Your task to perform on an android device: turn off notifications in google photos Image 0: 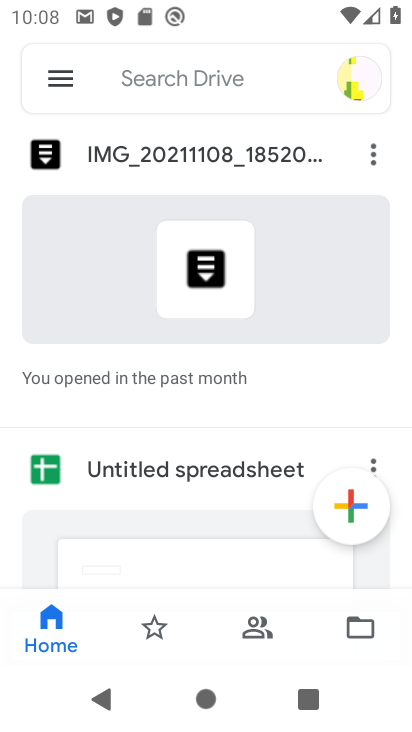
Step 0: press home button
Your task to perform on an android device: turn off notifications in google photos Image 1: 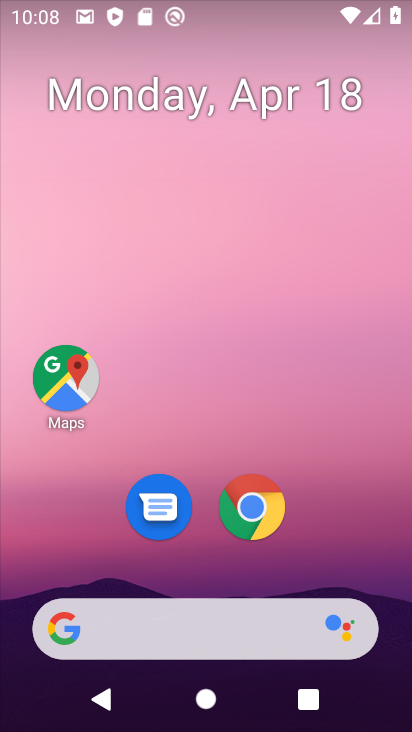
Step 1: drag from (332, 470) to (339, 90)
Your task to perform on an android device: turn off notifications in google photos Image 2: 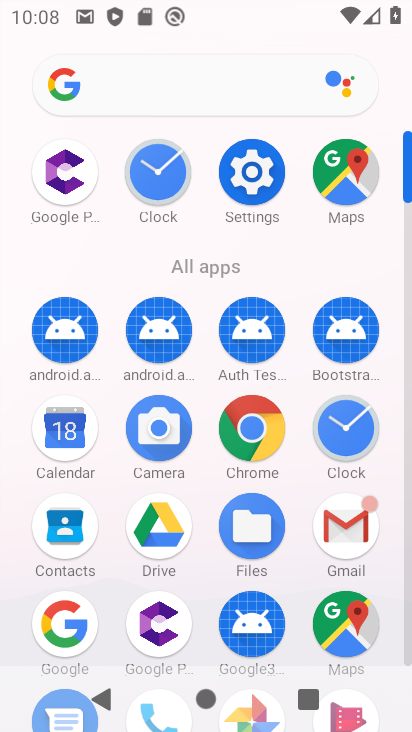
Step 2: drag from (284, 569) to (316, 224)
Your task to perform on an android device: turn off notifications in google photos Image 3: 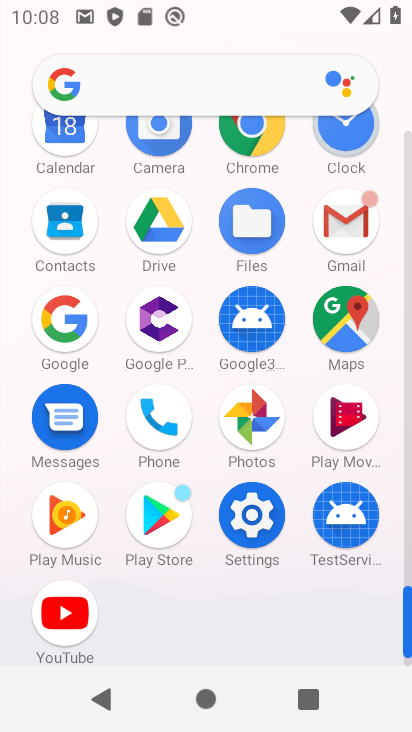
Step 3: click (265, 413)
Your task to perform on an android device: turn off notifications in google photos Image 4: 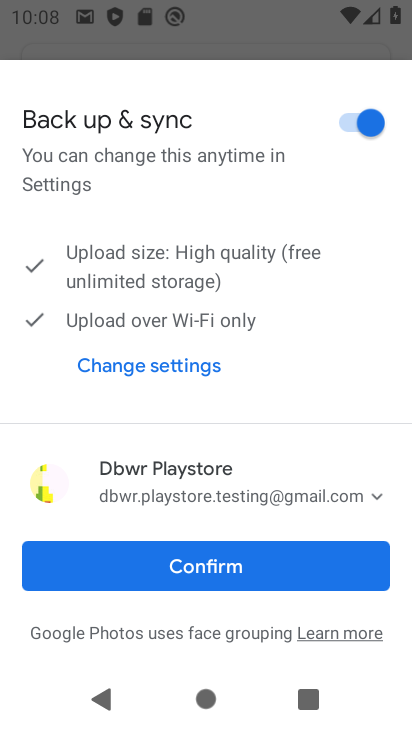
Step 4: click (293, 561)
Your task to perform on an android device: turn off notifications in google photos Image 5: 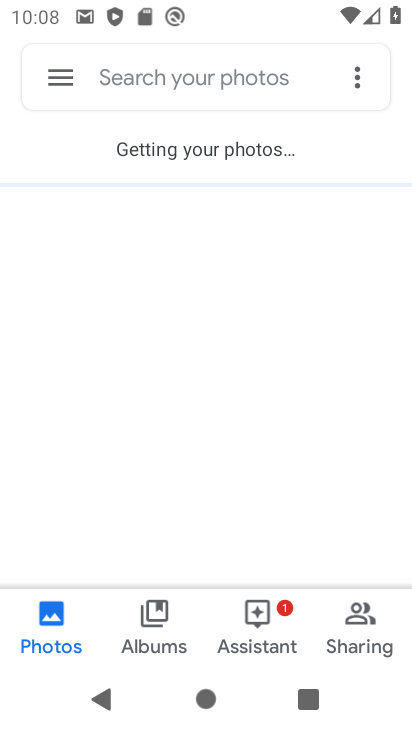
Step 5: click (63, 69)
Your task to perform on an android device: turn off notifications in google photos Image 6: 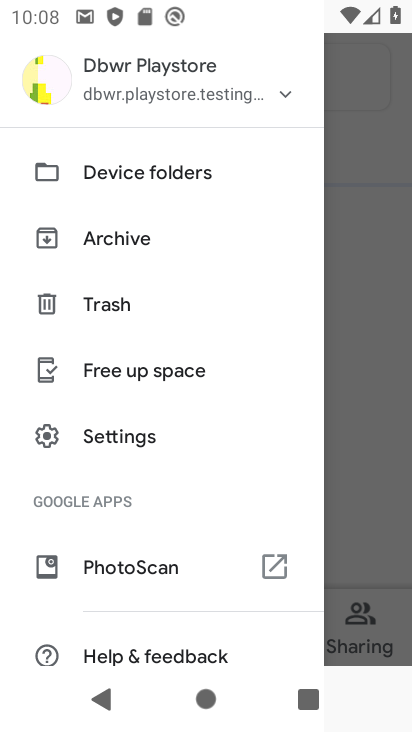
Step 6: click (105, 424)
Your task to perform on an android device: turn off notifications in google photos Image 7: 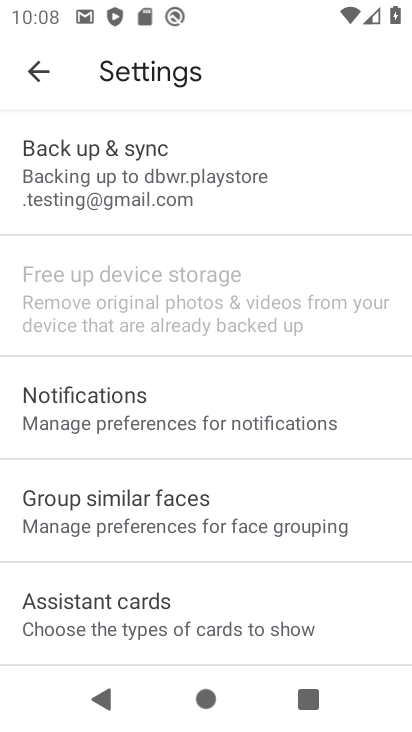
Step 7: click (210, 412)
Your task to perform on an android device: turn off notifications in google photos Image 8: 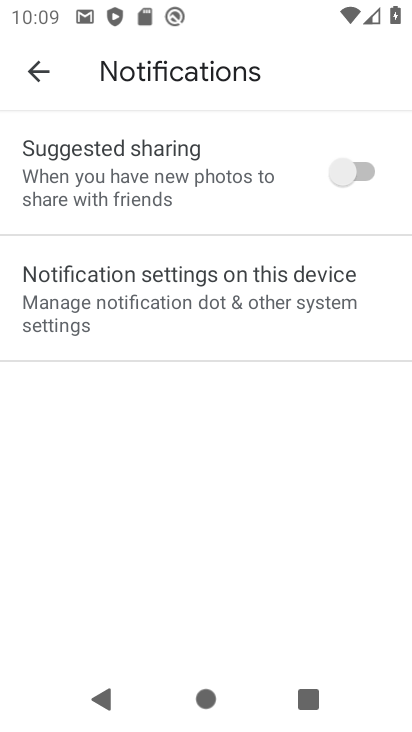
Step 8: task complete